Your task to perform on an android device: toggle wifi Image 0: 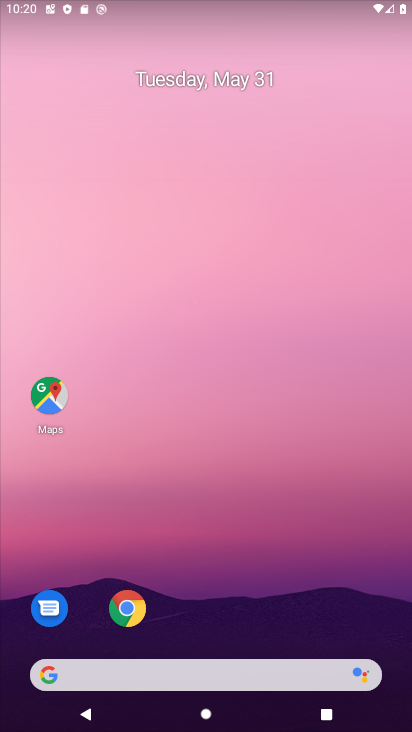
Step 0: drag from (234, 645) to (201, 4)
Your task to perform on an android device: toggle wifi Image 1: 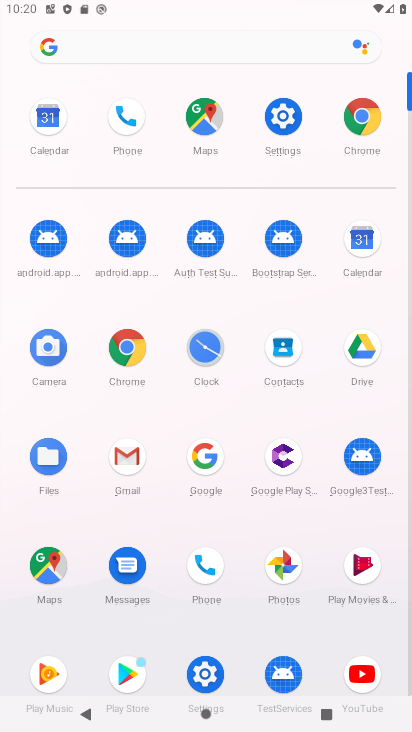
Step 1: click (276, 104)
Your task to perform on an android device: toggle wifi Image 2: 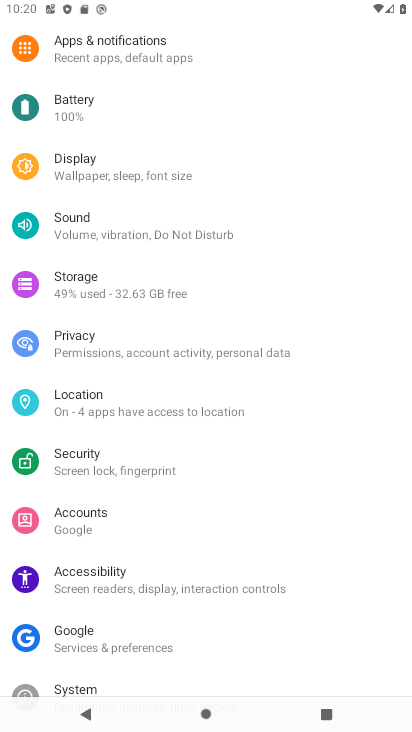
Step 2: drag from (194, 157) to (170, 604)
Your task to perform on an android device: toggle wifi Image 3: 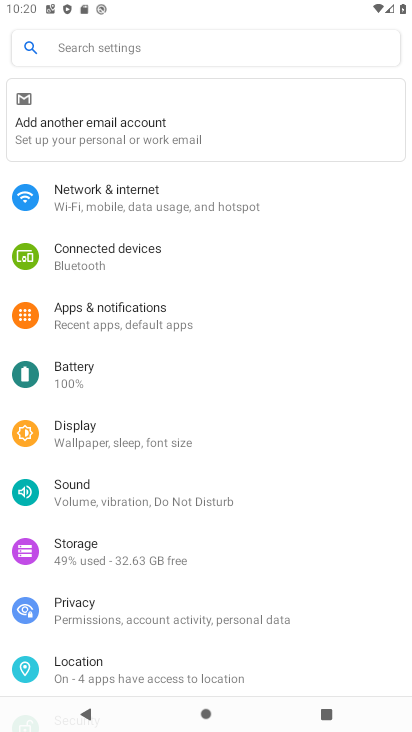
Step 3: click (92, 183)
Your task to perform on an android device: toggle wifi Image 4: 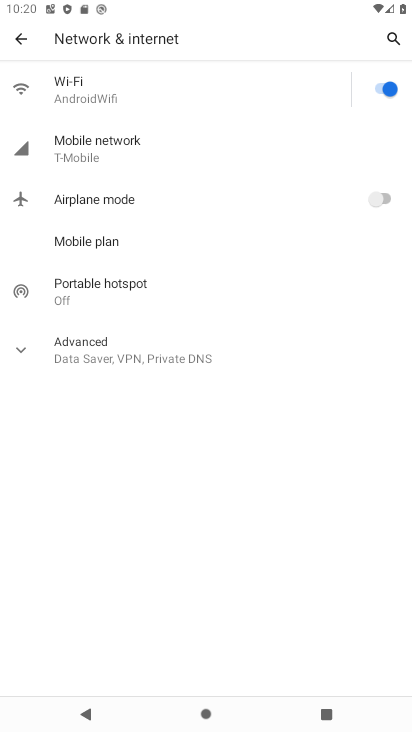
Step 4: click (377, 92)
Your task to perform on an android device: toggle wifi Image 5: 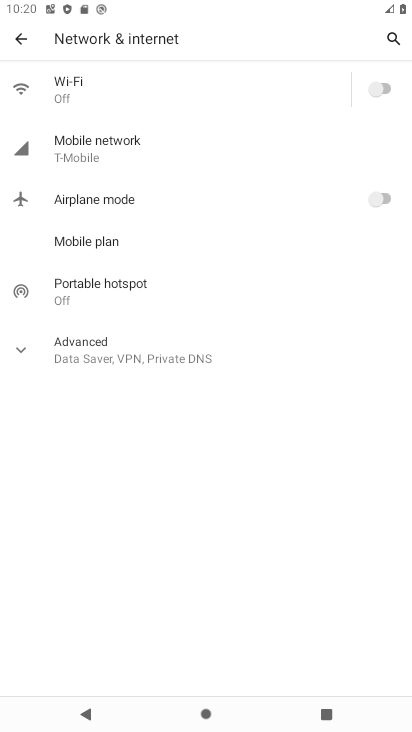
Step 5: task complete